Your task to perform on an android device: Go to CNN.com Image 0: 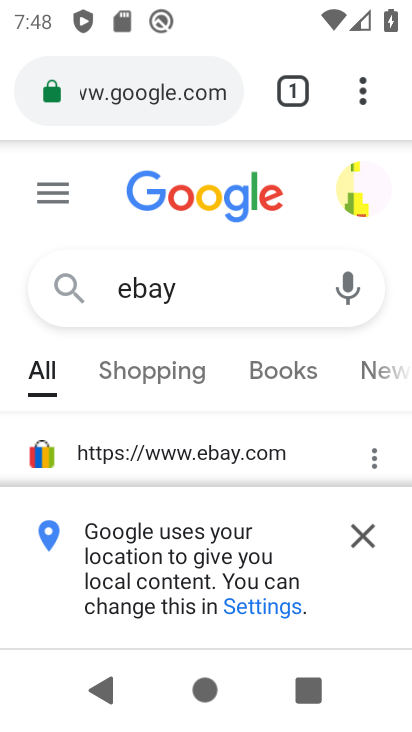
Step 0: click (115, 94)
Your task to perform on an android device: Go to CNN.com Image 1: 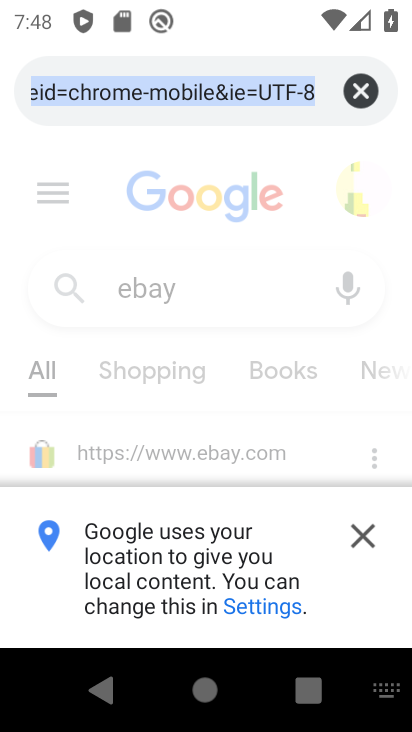
Step 1: click (361, 98)
Your task to perform on an android device: Go to CNN.com Image 2: 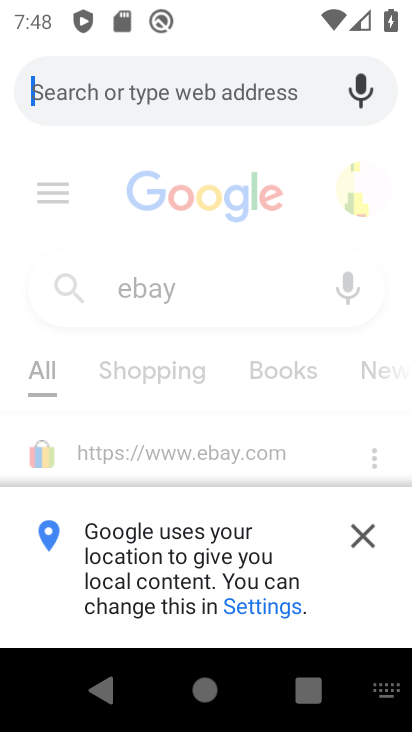
Step 2: type "cnn.com"
Your task to perform on an android device: Go to CNN.com Image 3: 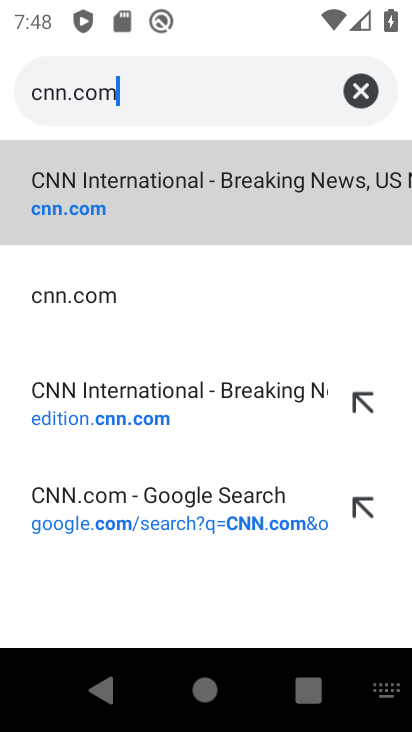
Step 3: click (55, 206)
Your task to perform on an android device: Go to CNN.com Image 4: 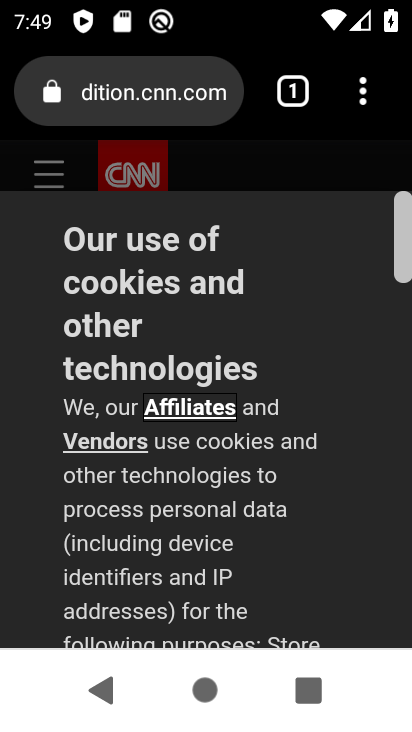
Step 4: task complete